Your task to perform on an android device: turn off data saver in the chrome app Image 0: 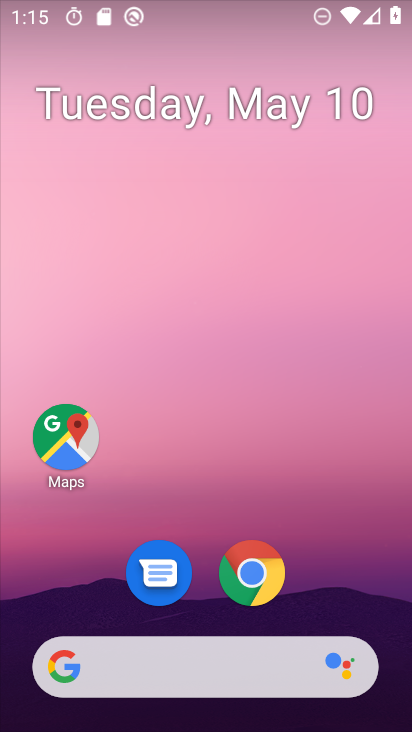
Step 0: drag from (357, 491) to (377, 149)
Your task to perform on an android device: turn off data saver in the chrome app Image 1: 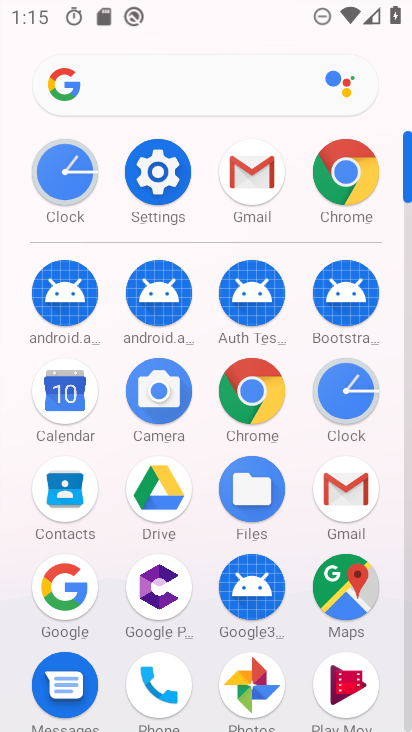
Step 1: click (345, 179)
Your task to perform on an android device: turn off data saver in the chrome app Image 2: 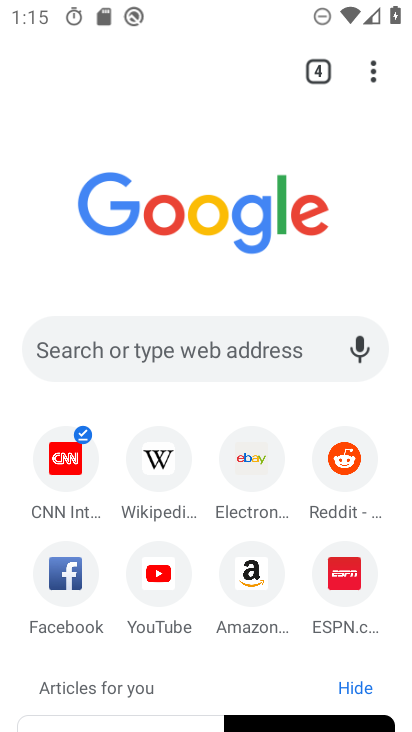
Step 2: drag from (367, 75) to (212, 604)
Your task to perform on an android device: turn off data saver in the chrome app Image 3: 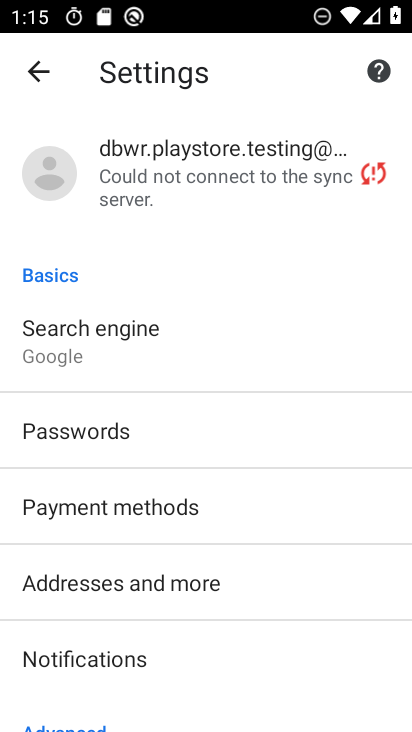
Step 3: drag from (212, 604) to (197, 318)
Your task to perform on an android device: turn off data saver in the chrome app Image 4: 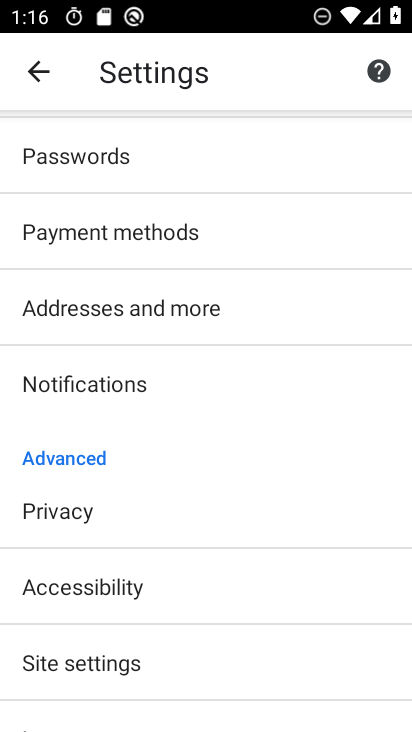
Step 4: drag from (200, 650) to (184, 278)
Your task to perform on an android device: turn off data saver in the chrome app Image 5: 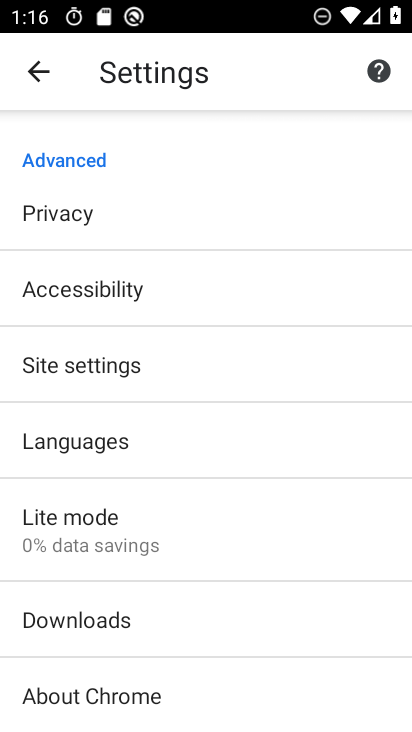
Step 5: click (121, 536)
Your task to perform on an android device: turn off data saver in the chrome app Image 6: 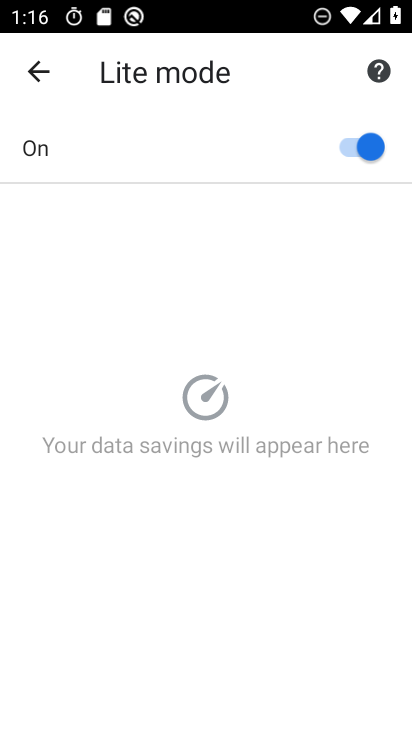
Step 6: click (337, 152)
Your task to perform on an android device: turn off data saver in the chrome app Image 7: 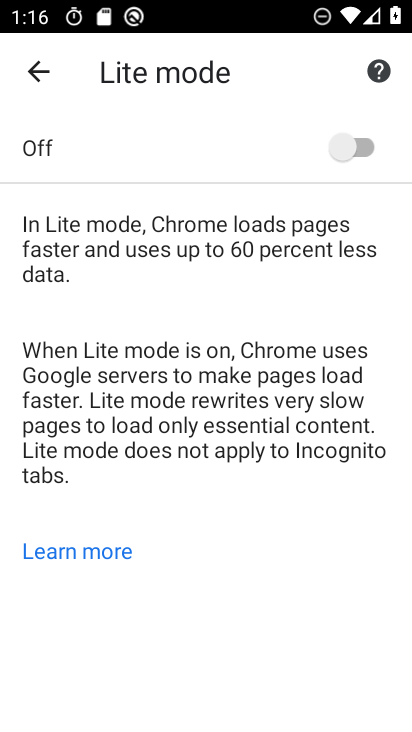
Step 7: task complete